Your task to perform on an android device: Set the phone to "Do not disturb". Image 0: 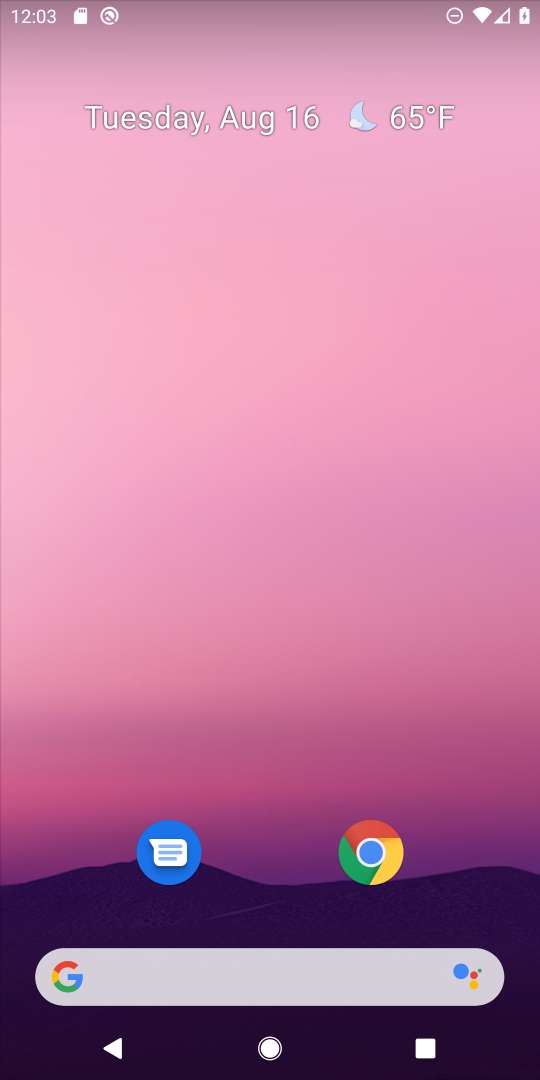
Step 0: drag from (334, 6) to (298, 789)
Your task to perform on an android device: Set the phone to "Do not disturb". Image 1: 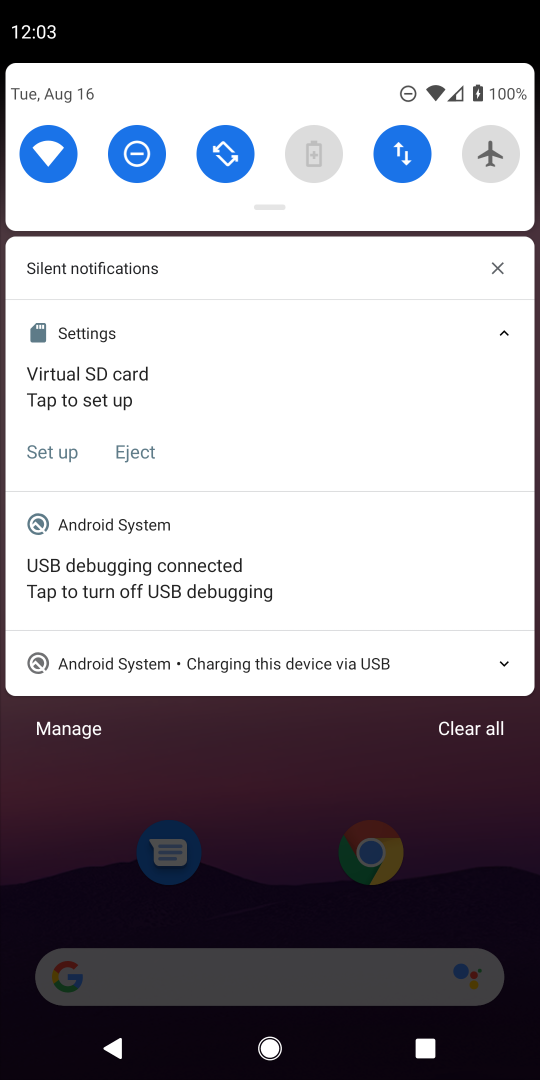
Step 1: task complete